Your task to perform on an android device: add a contact Image 0: 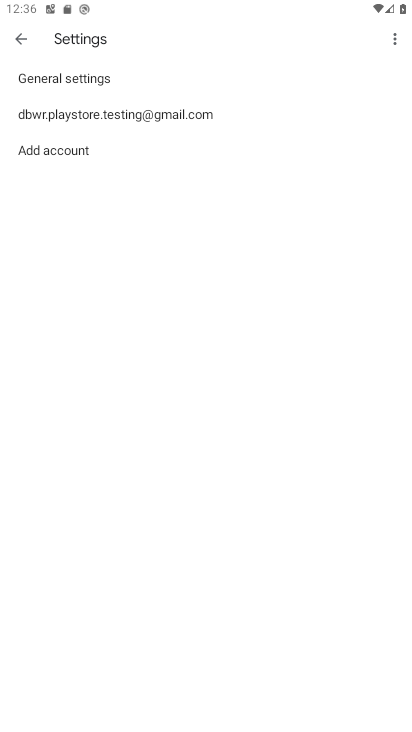
Step 0: press home button
Your task to perform on an android device: add a contact Image 1: 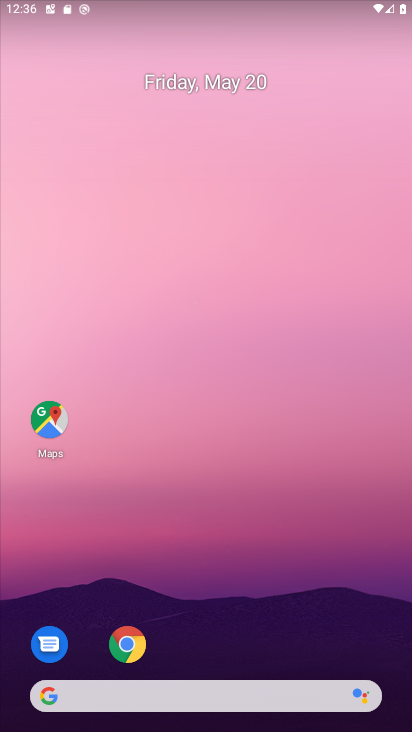
Step 1: drag from (127, 685) to (156, 371)
Your task to perform on an android device: add a contact Image 2: 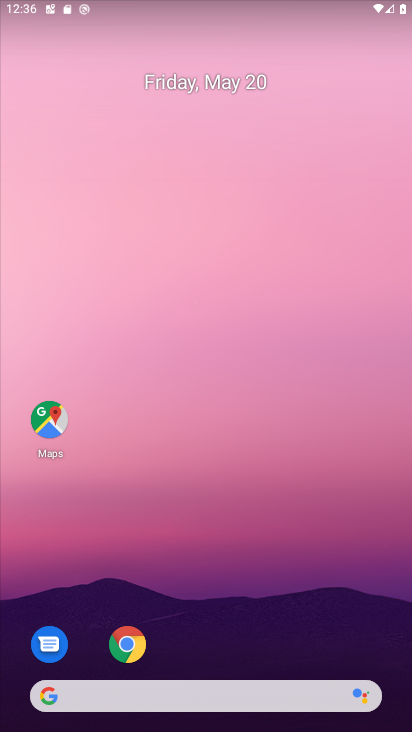
Step 2: drag from (202, 656) to (159, 256)
Your task to perform on an android device: add a contact Image 3: 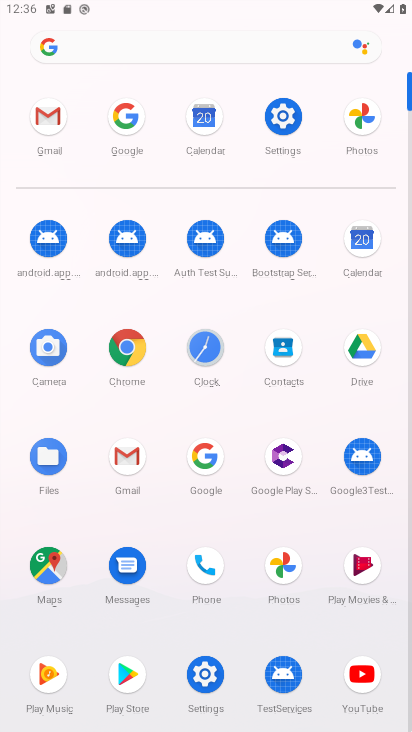
Step 3: click (283, 357)
Your task to perform on an android device: add a contact Image 4: 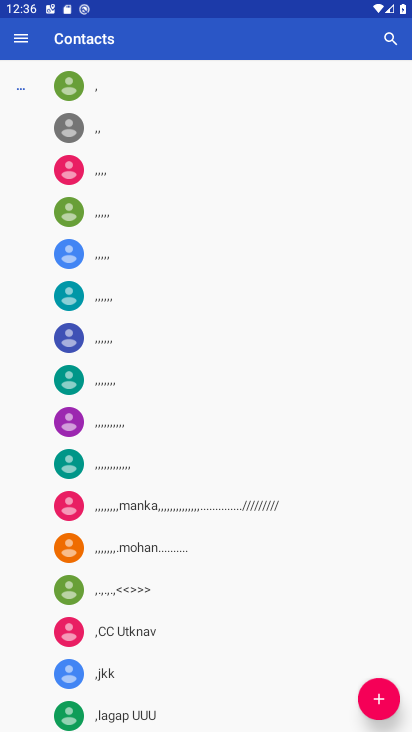
Step 4: click (381, 701)
Your task to perform on an android device: add a contact Image 5: 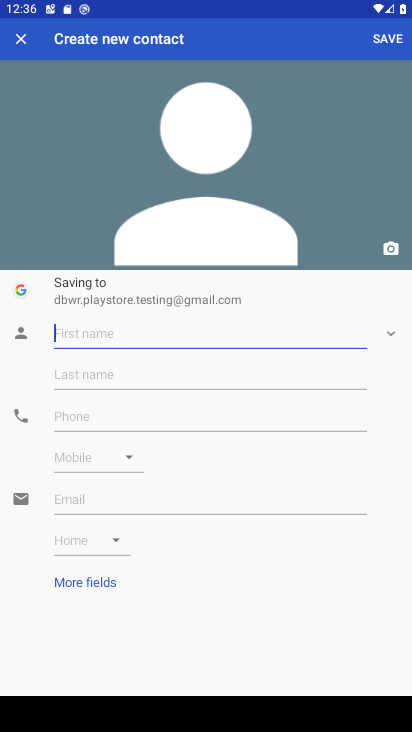
Step 5: type "jhukli"
Your task to perform on an android device: add a contact Image 6: 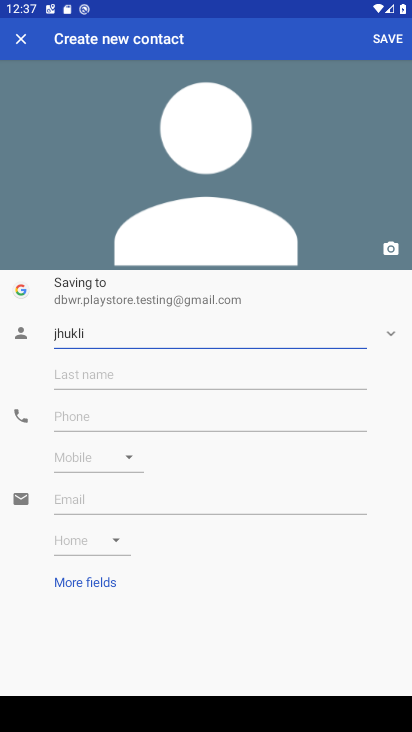
Step 6: click (135, 374)
Your task to perform on an android device: add a contact Image 7: 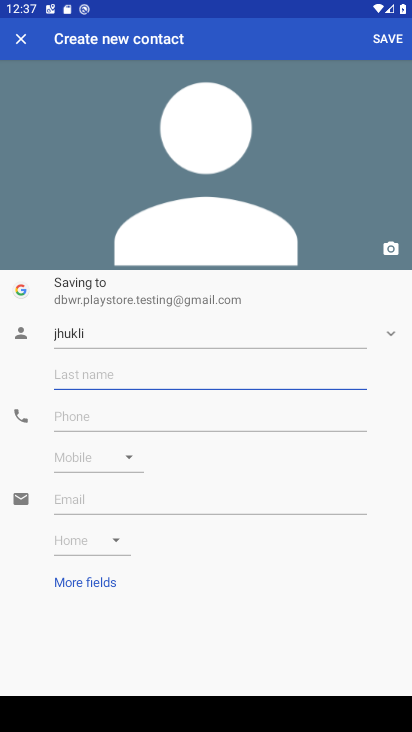
Step 7: type "da"
Your task to perform on an android device: add a contact Image 8: 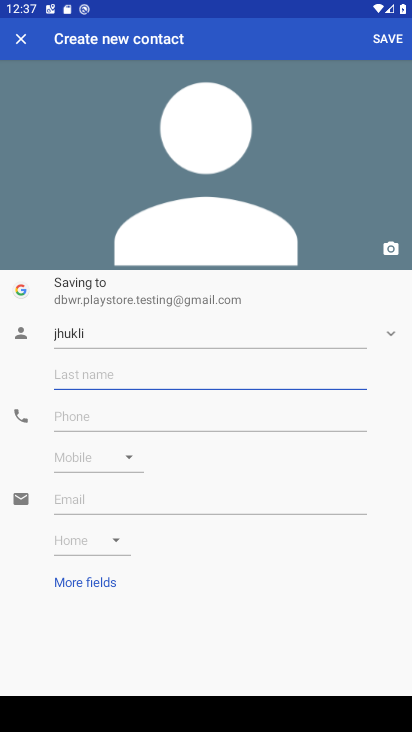
Step 8: click (78, 417)
Your task to perform on an android device: add a contact Image 9: 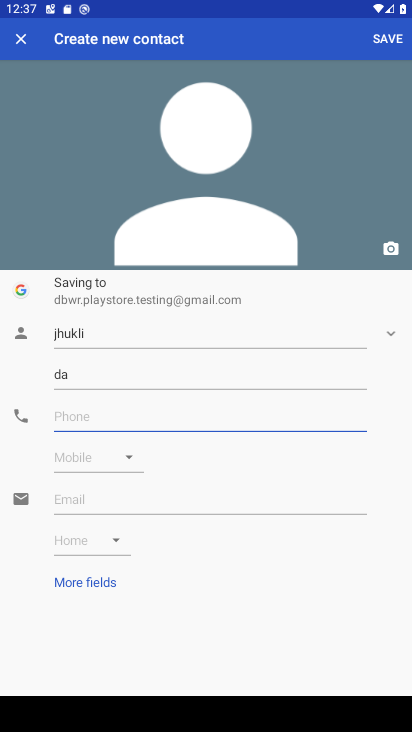
Step 9: type "7678456765"
Your task to perform on an android device: add a contact Image 10: 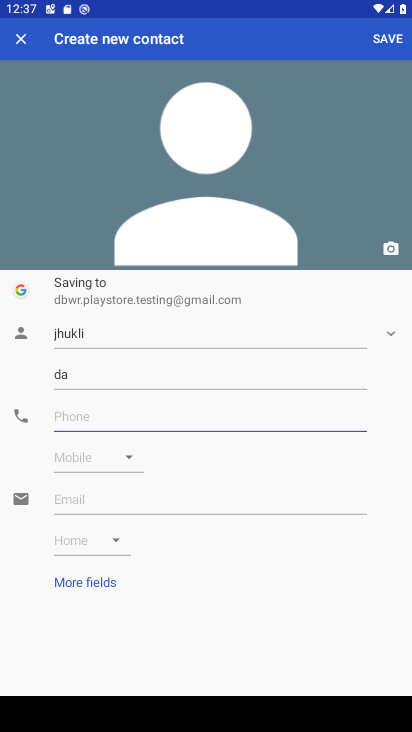
Step 10: click (78, 462)
Your task to perform on an android device: add a contact Image 11: 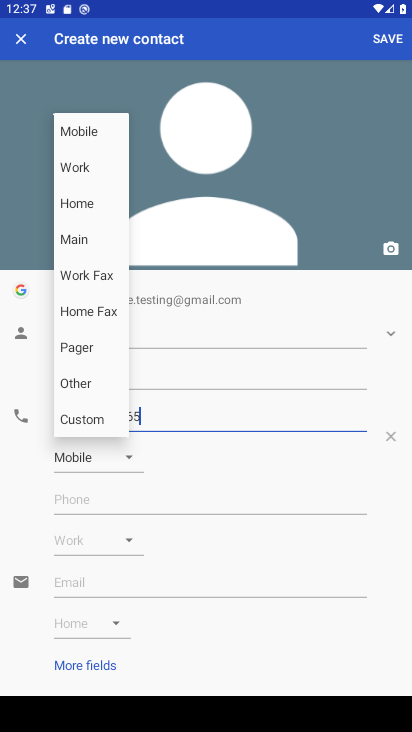
Step 11: click (86, 134)
Your task to perform on an android device: add a contact Image 12: 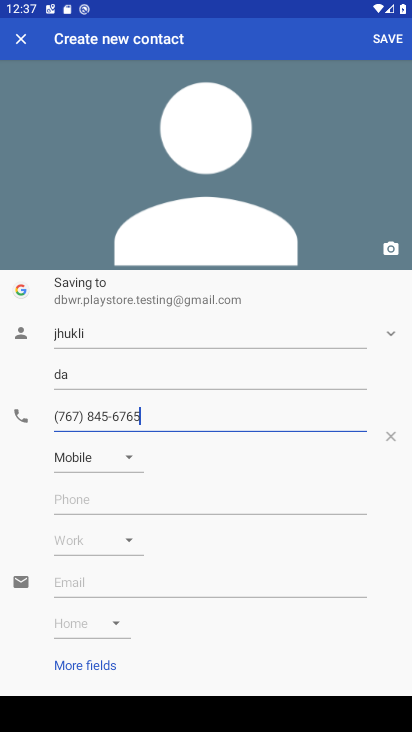
Step 12: click (394, 35)
Your task to perform on an android device: add a contact Image 13: 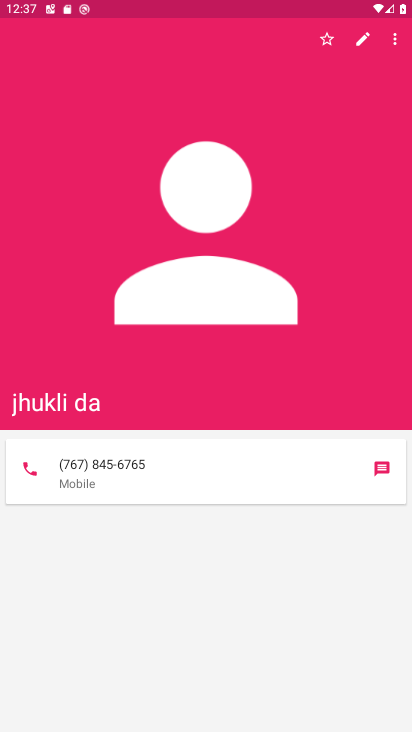
Step 13: task complete